Your task to perform on an android device: visit the assistant section in the google photos Image 0: 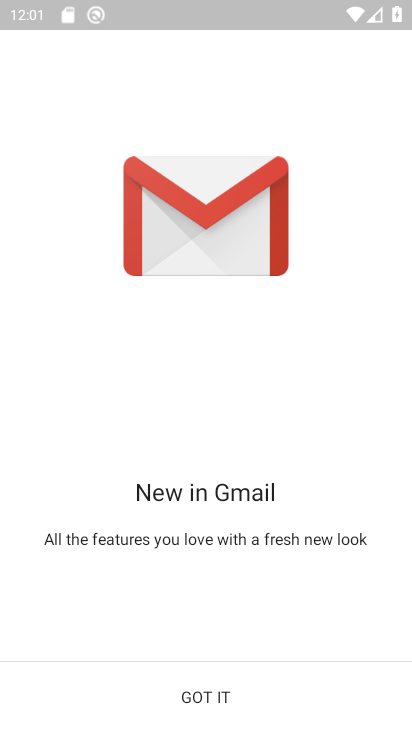
Step 0: press home button
Your task to perform on an android device: visit the assistant section in the google photos Image 1: 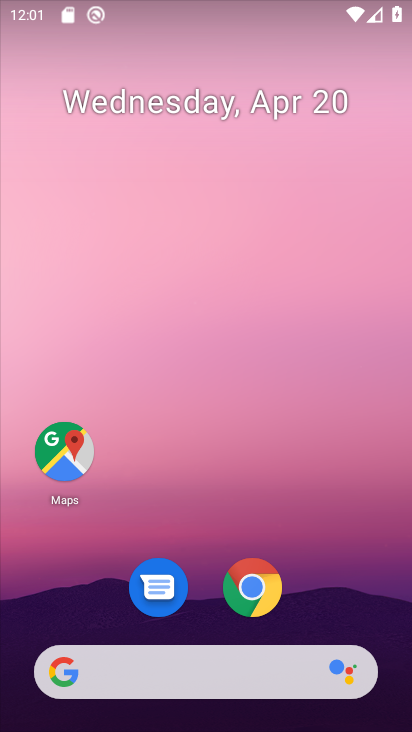
Step 1: drag from (198, 618) to (255, 106)
Your task to perform on an android device: visit the assistant section in the google photos Image 2: 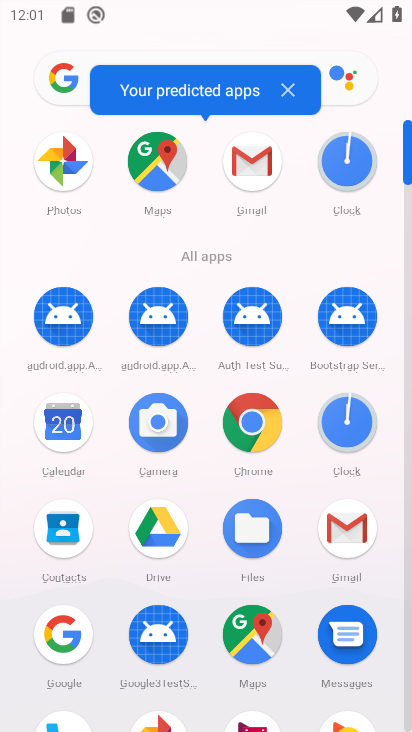
Step 2: drag from (196, 627) to (196, 249)
Your task to perform on an android device: visit the assistant section in the google photos Image 3: 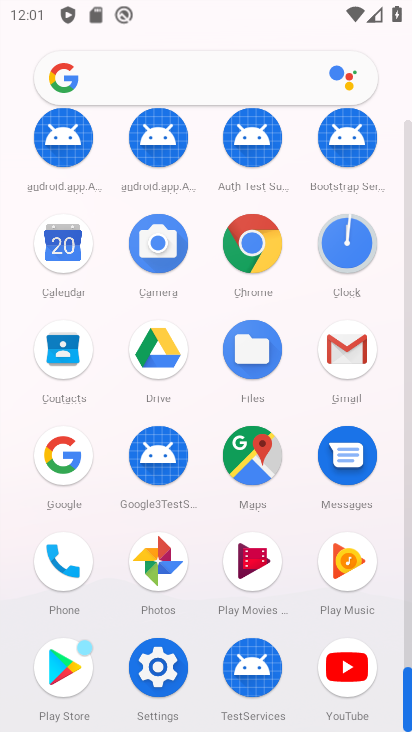
Step 3: click (151, 553)
Your task to perform on an android device: visit the assistant section in the google photos Image 4: 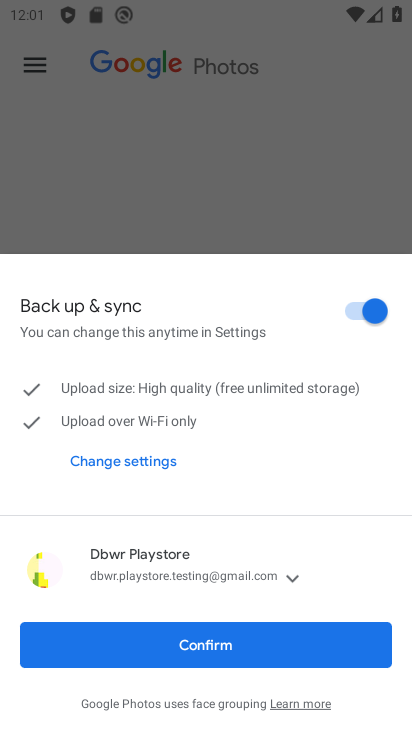
Step 4: click (206, 643)
Your task to perform on an android device: visit the assistant section in the google photos Image 5: 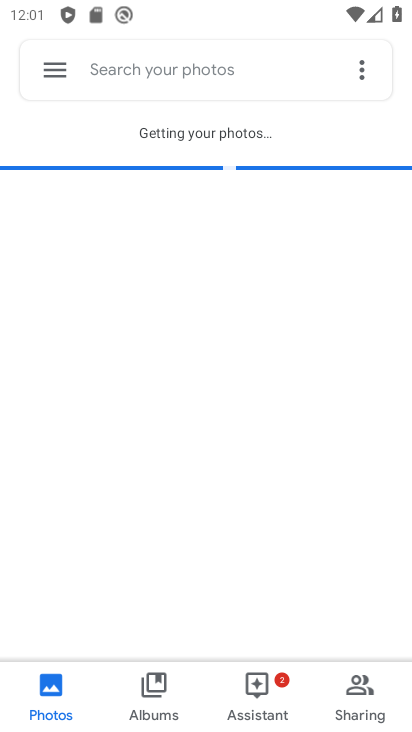
Step 5: click (260, 676)
Your task to perform on an android device: visit the assistant section in the google photos Image 6: 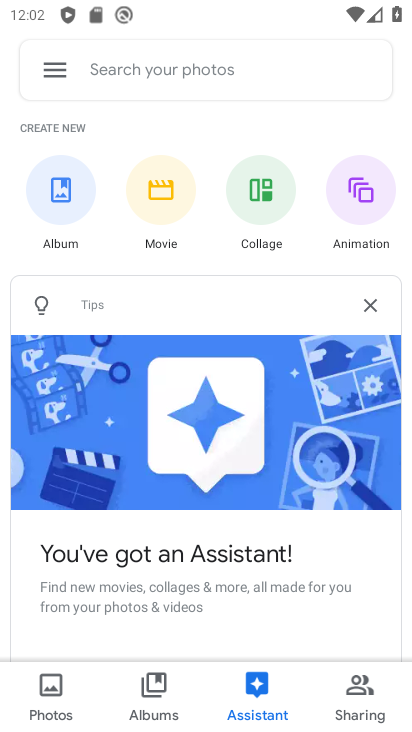
Step 6: task complete